Your task to perform on an android device: Go to Amazon Image 0: 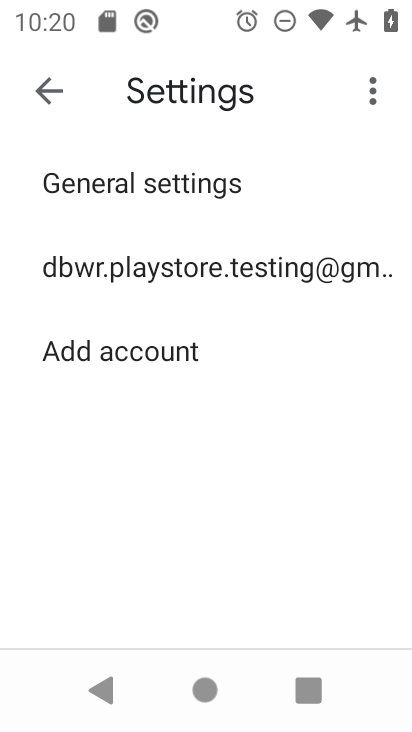
Step 0: press home button
Your task to perform on an android device: Go to Amazon Image 1: 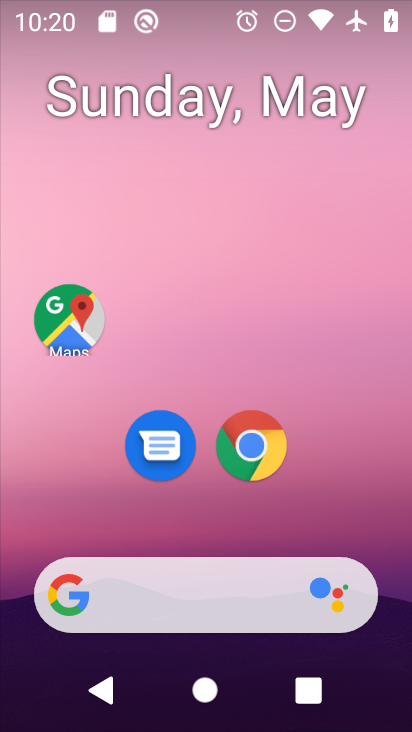
Step 1: drag from (251, 532) to (281, 180)
Your task to perform on an android device: Go to Amazon Image 2: 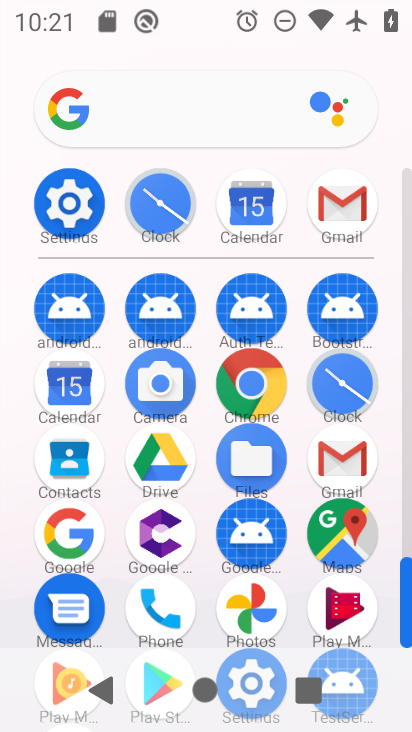
Step 2: click (255, 395)
Your task to perform on an android device: Go to Amazon Image 3: 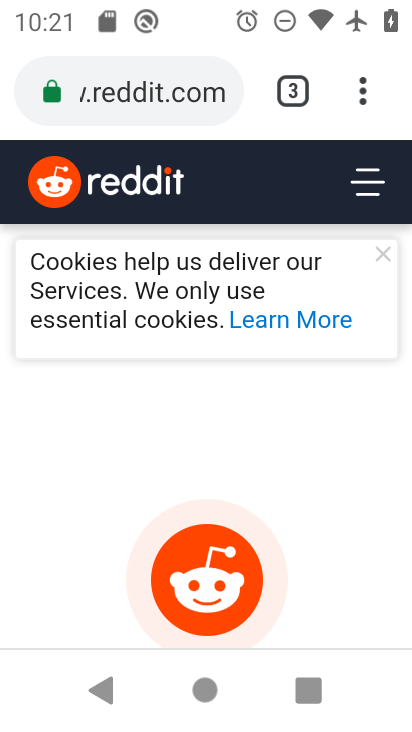
Step 3: drag from (192, 84) to (188, 266)
Your task to perform on an android device: Go to Amazon Image 4: 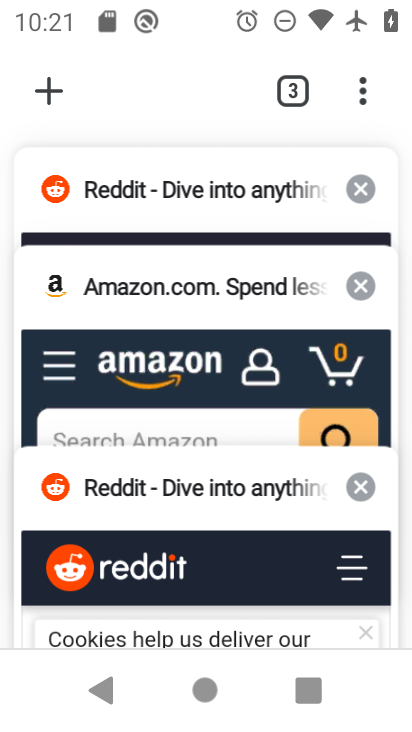
Step 4: click (44, 93)
Your task to perform on an android device: Go to Amazon Image 5: 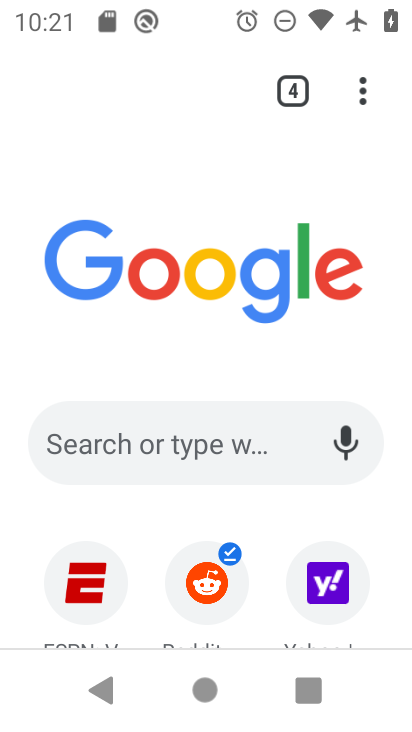
Step 5: drag from (177, 529) to (200, 267)
Your task to perform on an android device: Go to Amazon Image 6: 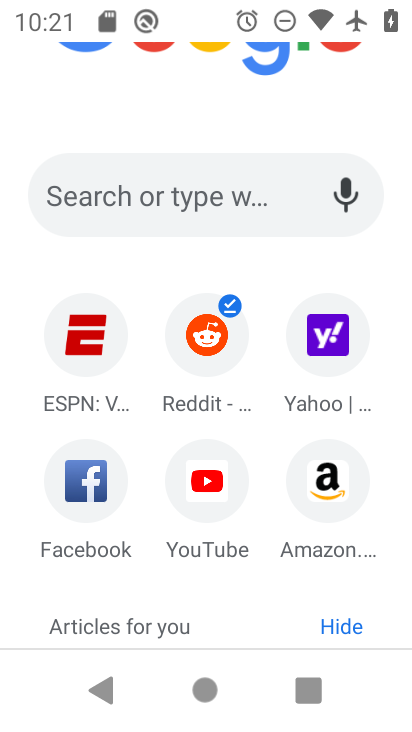
Step 6: click (308, 478)
Your task to perform on an android device: Go to Amazon Image 7: 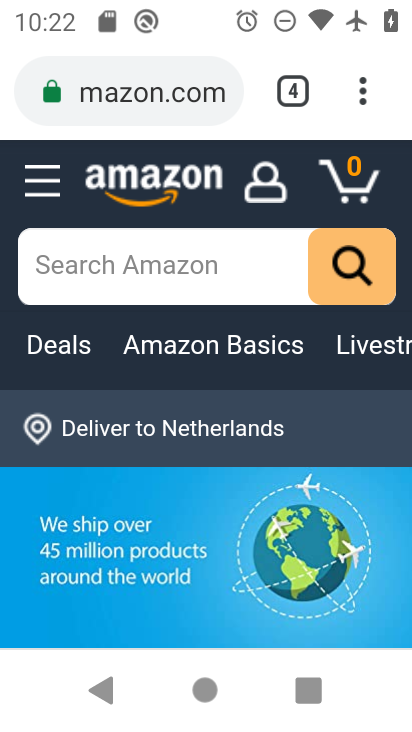
Step 7: task complete